Your task to perform on an android device: allow cookies in the chrome app Image 0: 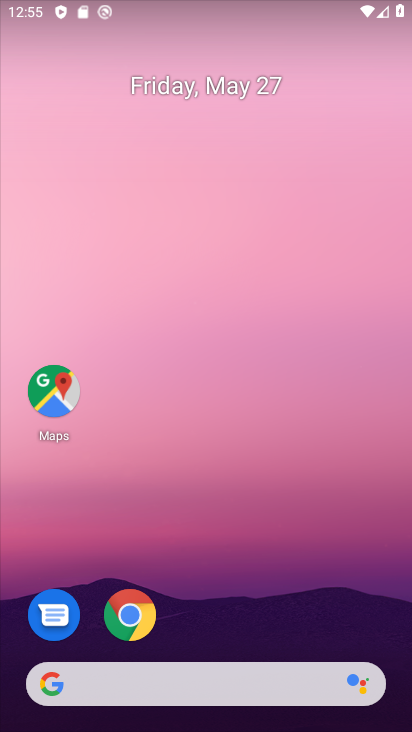
Step 0: drag from (203, 624) to (322, 189)
Your task to perform on an android device: allow cookies in the chrome app Image 1: 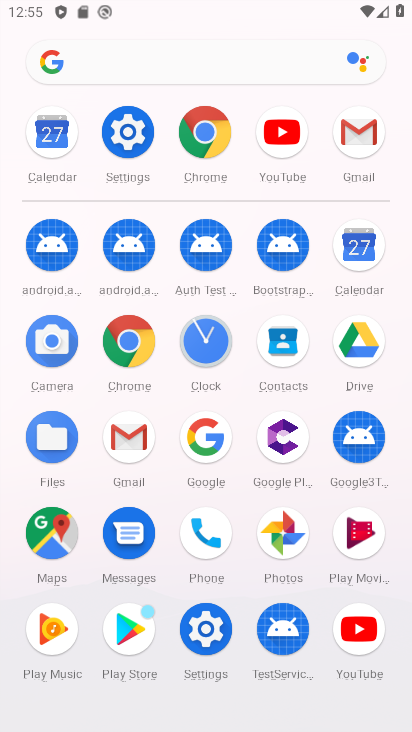
Step 1: click (137, 365)
Your task to perform on an android device: allow cookies in the chrome app Image 2: 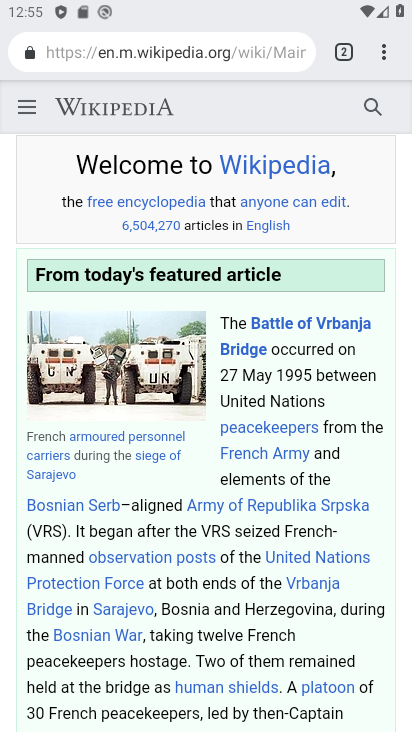
Step 2: click (381, 54)
Your task to perform on an android device: allow cookies in the chrome app Image 3: 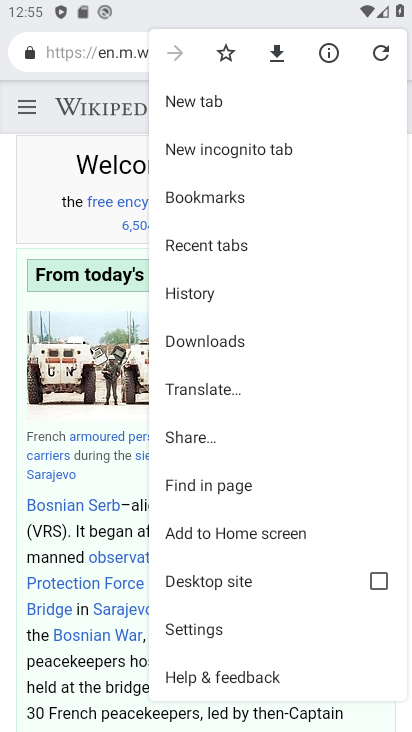
Step 3: drag from (253, 555) to (309, 226)
Your task to perform on an android device: allow cookies in the chrome app Image 4: 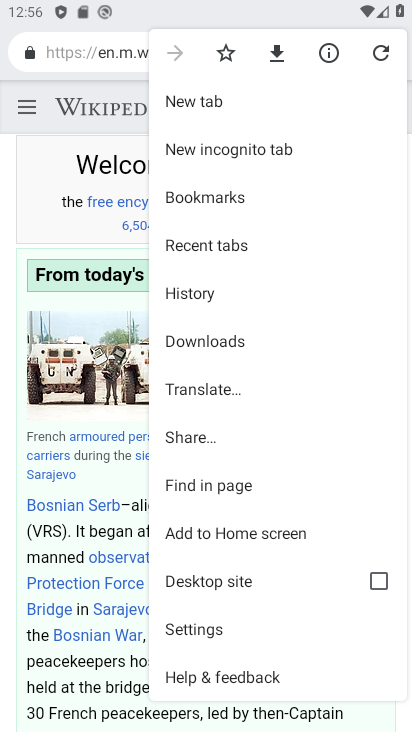
Step 4: click (244, 631)
Your task to perform on an android device: allow cookies in the chrome app Image 5: 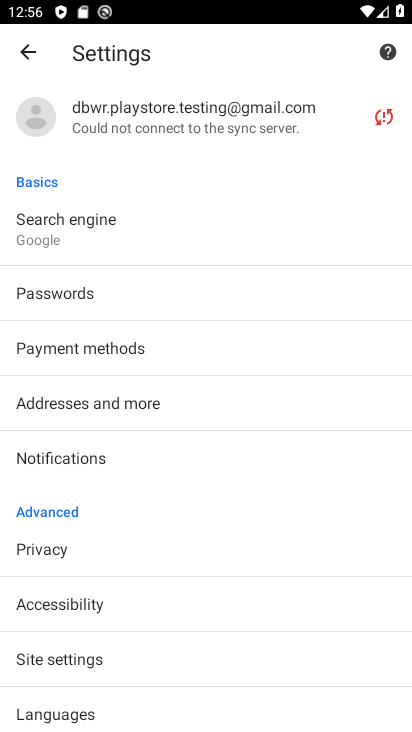
Step 5: drag from (203, 651) to (282, 263)
Your task to perform on an android device: allow cookies in the chrome app Image 6: 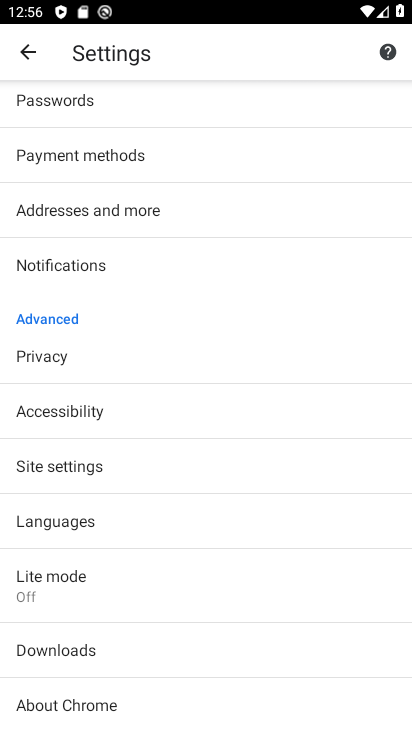
Step 6: click (125, 476)
Your task to perform on an android device: allow cookies in the chrome app Image 7: 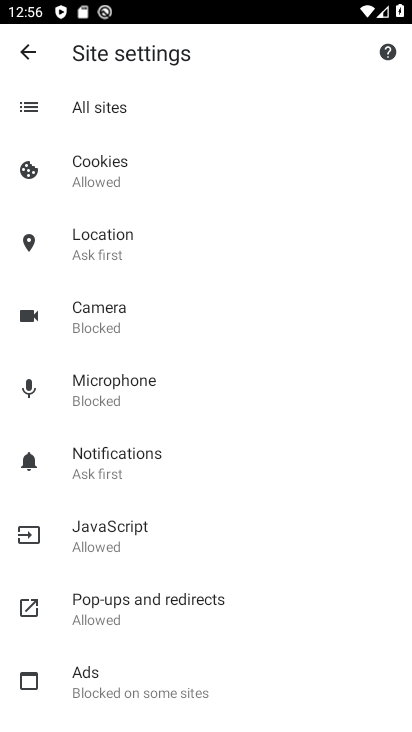
Step 7: task complete